Your task to perform on an android device: Open battery settings Image 0: 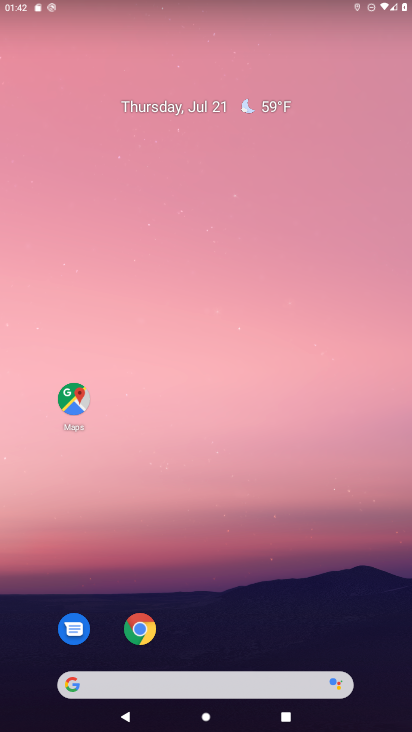
Step 0: press home button
Your task to perform on an android device: Open battery settings Image 1: 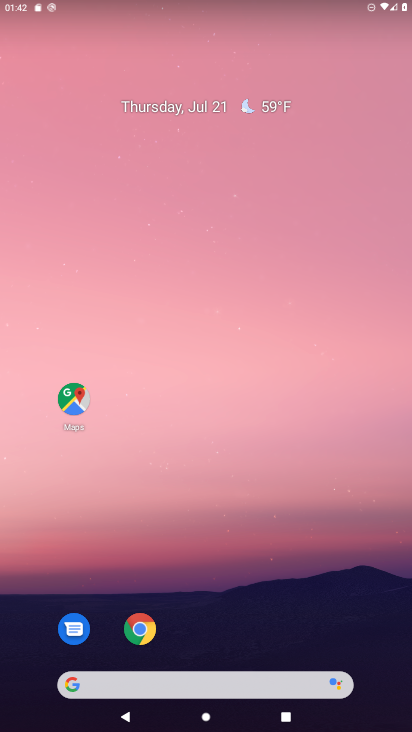
Step 1: drag from (392, 653) to (287, 37)
Your task to perform on an android device: Open battery settings Image 2: 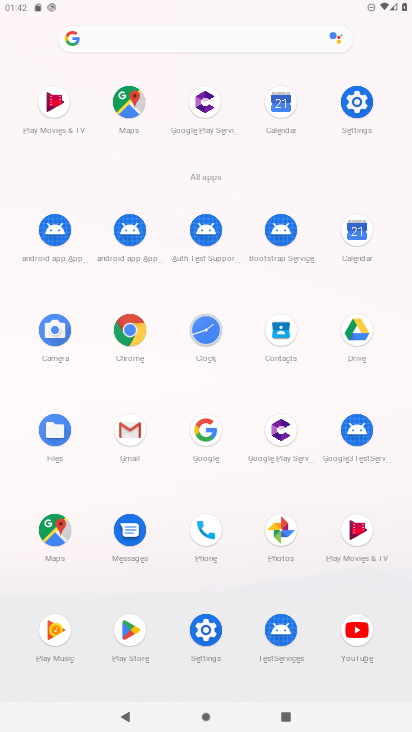
Step 2: click (205, 632)
Your task to perform on an android device: Open battery settings Image 3: 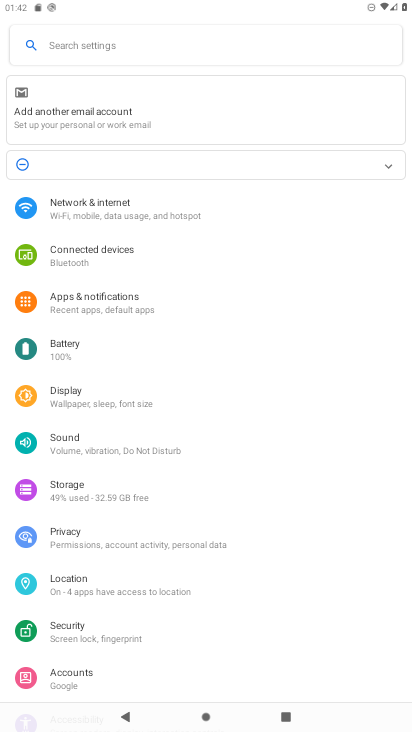
Step 3: click (63, 342)
Your task to perform on an android device: Open battery settings Image 4: 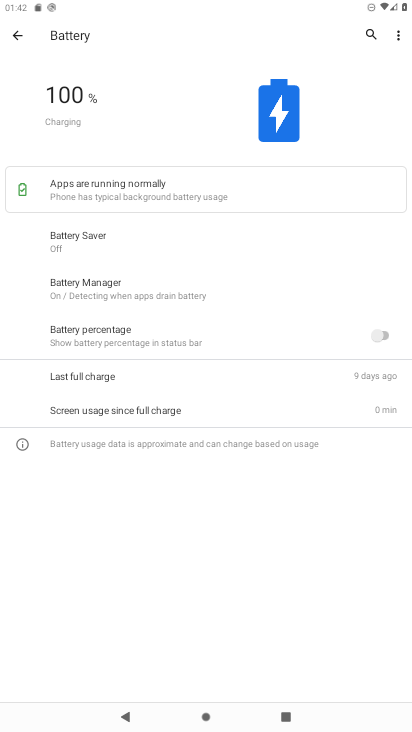
Step 4: task complete